Your task to perform on an android device: Is it going to rain tomorrow? Image 0: 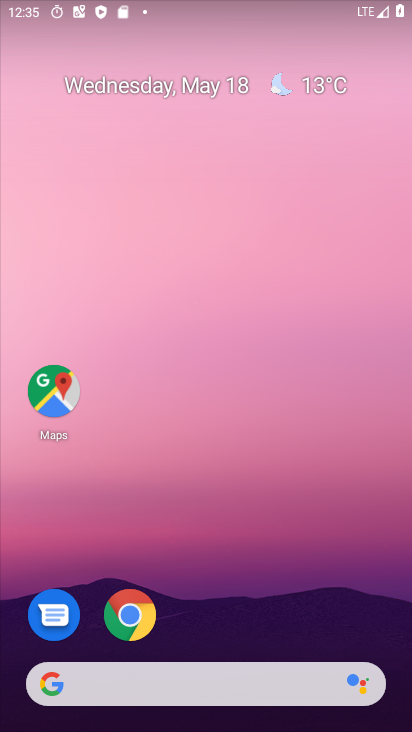
Step 0: click (309, 86)
Your task to perform on an android device: Is it going to rain tomorrow? Image 1: 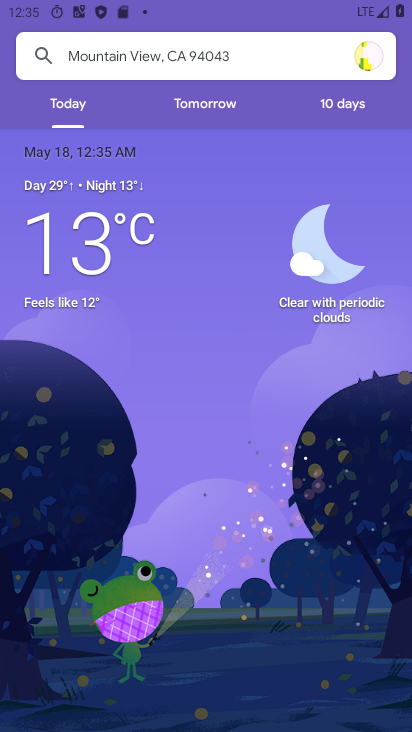
Step 1: task complete